Your task to perform on an android device: Go to wifi settings Image 0: 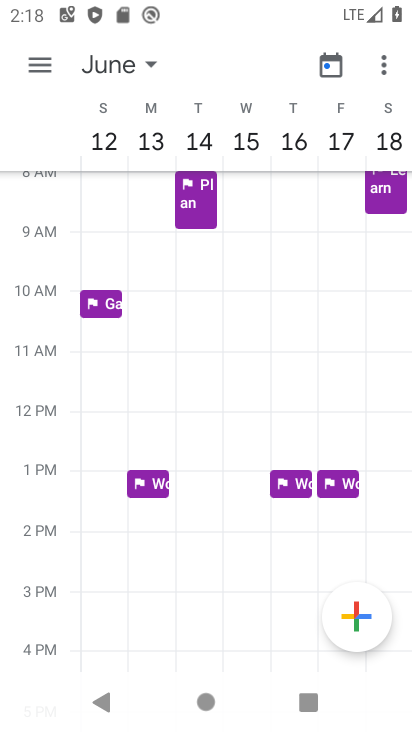
Step 0: press home button
Your task to perform on an android device: Go to wifi settings Image 1: 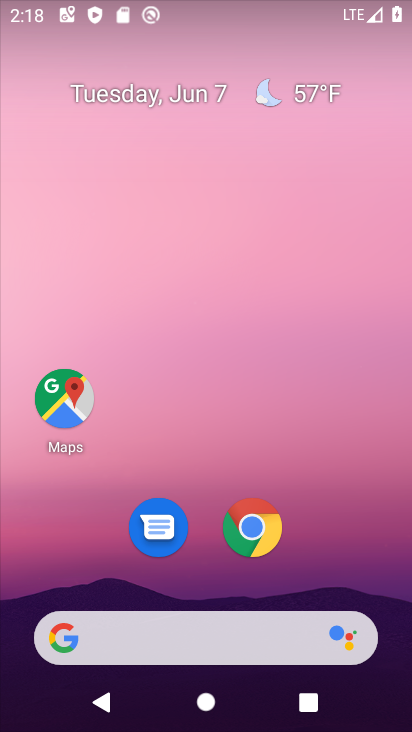
Step 1: drag from (358, 540) to (284, 252)
Your task to perform on an android device: Go to wifi settings Image 2: 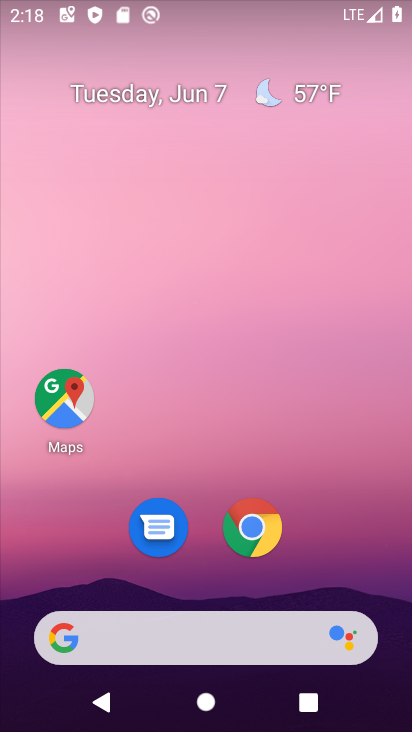
Step 2: drag from (395, 591) to (287, 1)
Your task to perform on an android device: Go to wifi settings Image 3: 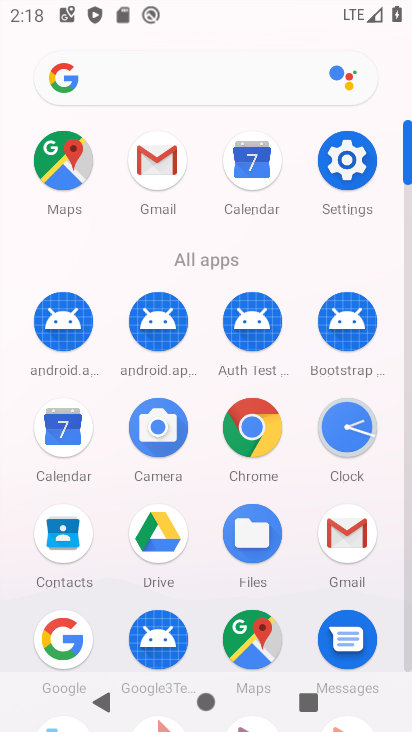
Step 3: click (362, 153)
Your task to perform on an android device: Go to wifi settings Image 4: 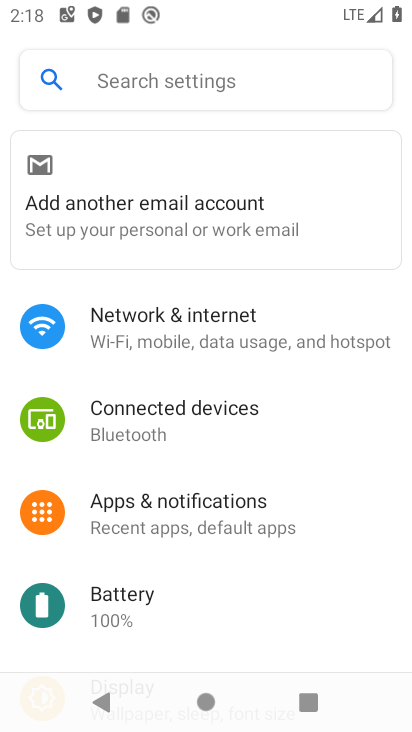
Step 4: click (298, 323)
Your task to perform on an android device: Go to wifi settings Image 5: 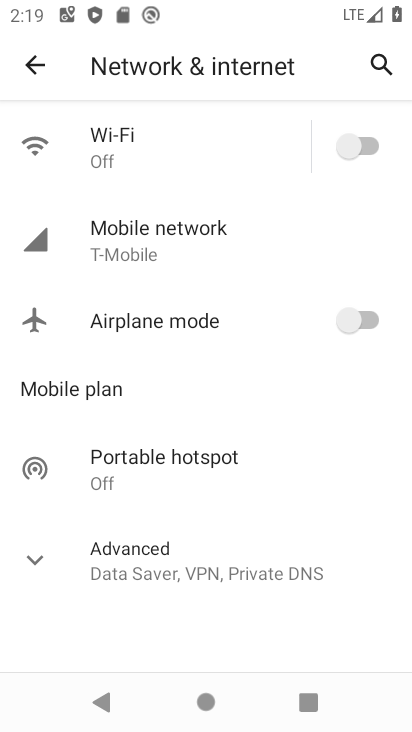
Step 5: click (193, 149)
Your task to perform on an android device: Go to wifi settings Image 6: 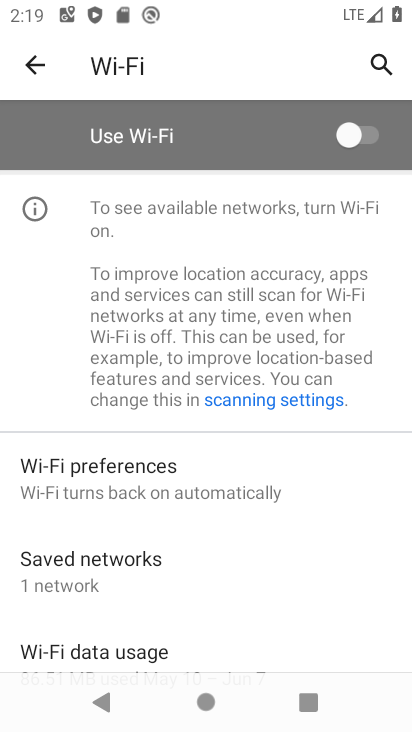
Step 6: task complete